Your task to perform on an android device: change the clock display to digital Image 0: 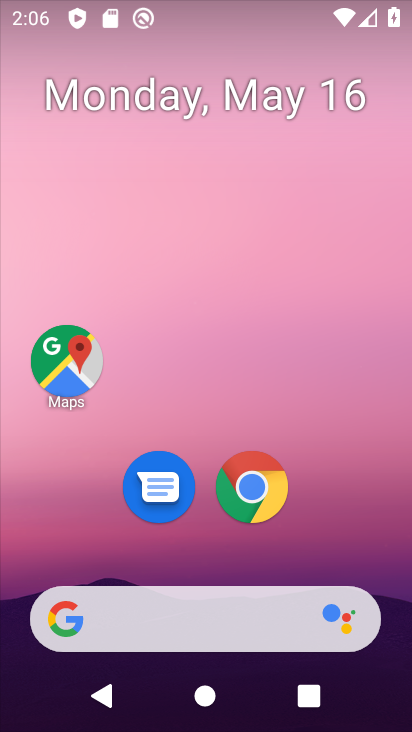
Step 0: drag from (339, 543) to (276, 59)
Your task to perform on an android device: change the clock display to digital Image 1: 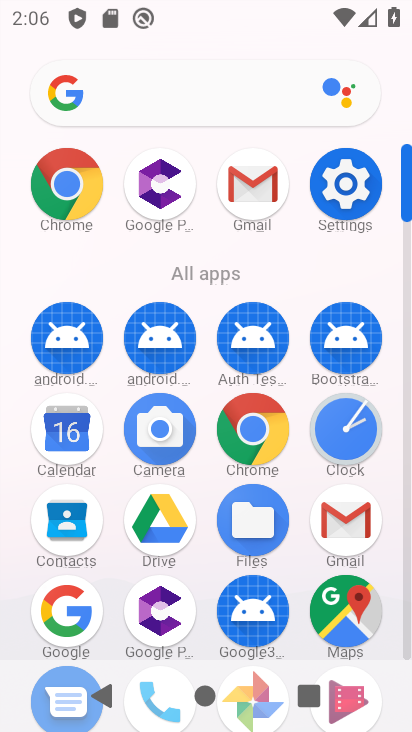
Step 1: click (347, 431)
Your task to perform on an android device: change the clock display to digital Image 2: 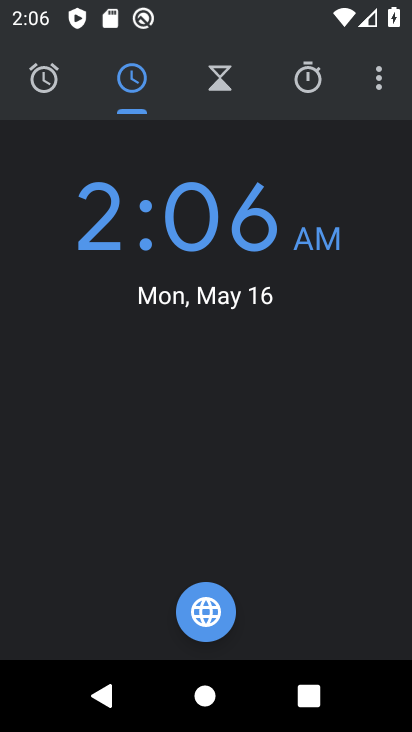
Step 2: click (377, 79)
Your task to perform on an android device: change the clock display to digital Image 3: 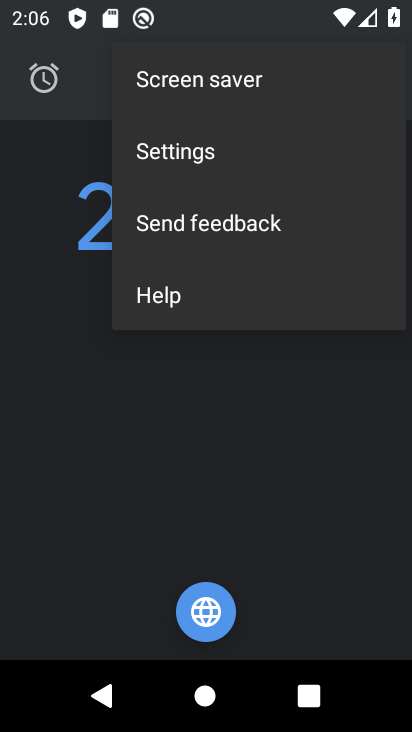
Step 3: click (202, 153)
Your task to perform on an android device: change the clock display to digital Image 4: 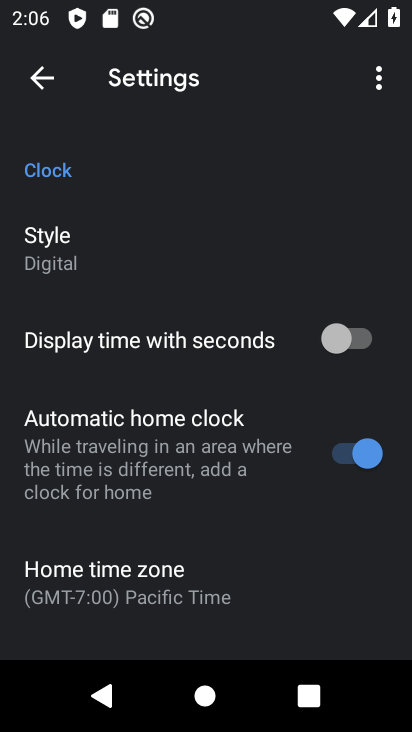
Step 4: click (106, 242)
Your task to perform on an android device: change the clock display to digital Image 5: 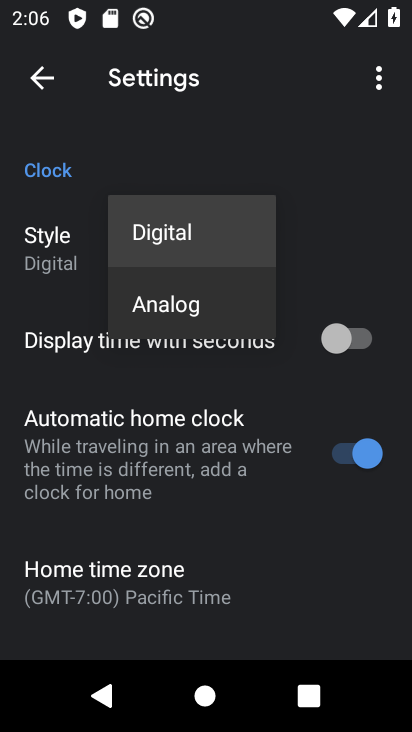
Step 5: click (144, 233)
Your task to perform on an android device: change the clock display to digital Image 6: 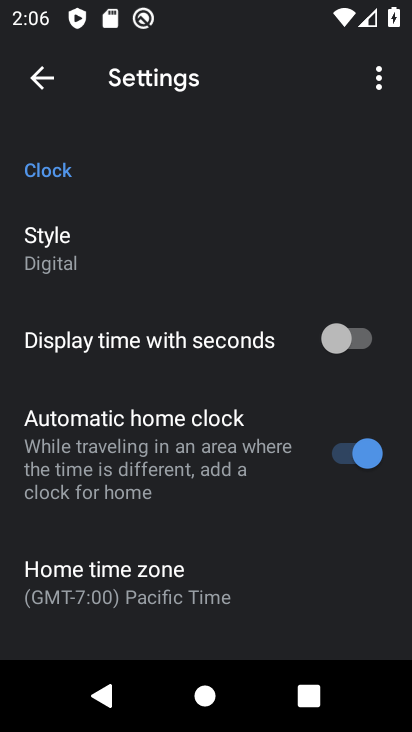
Step 6: task complete